Your task to perform on an android device: search for starred emails in the gmail app Image 0: 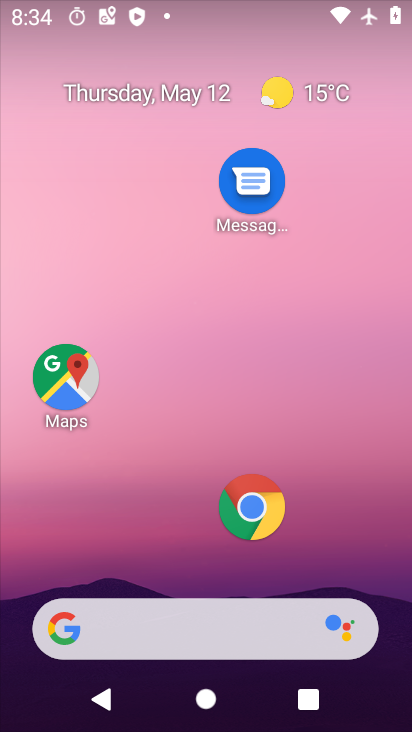
Step 0: drag from (341, 570) to (317, 42)
Your task to perform on an android device: search for starred emails in the gmail app Image 1: 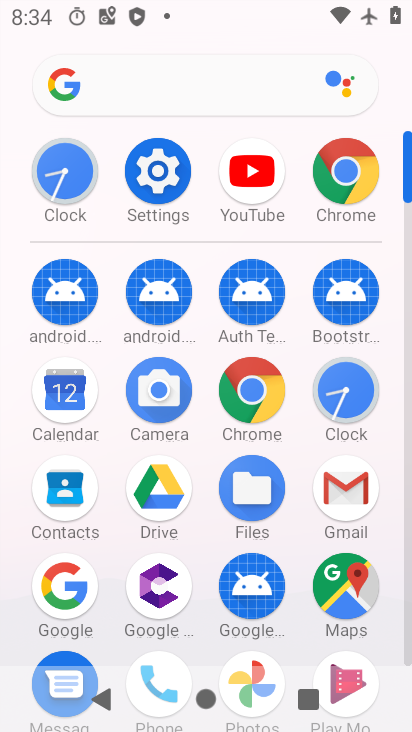
Step 1: click (356, 489)
Your task to perform on an android device: search for starred emails in the gmail app Image 2: 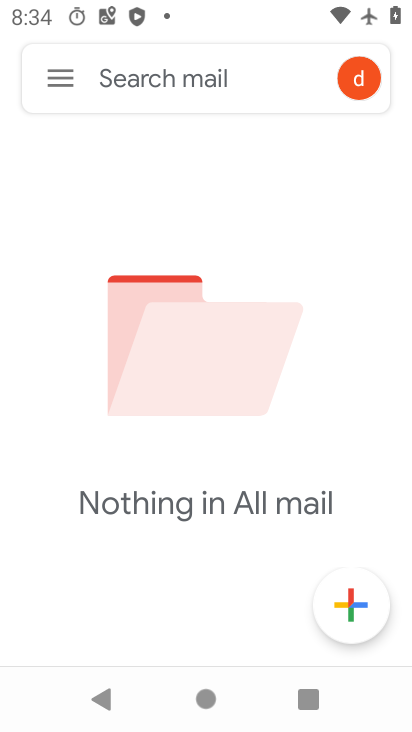
Step 2: click (69, 74)
Your task to perform on an android device: search for starred emails in the gmail app Image 3: 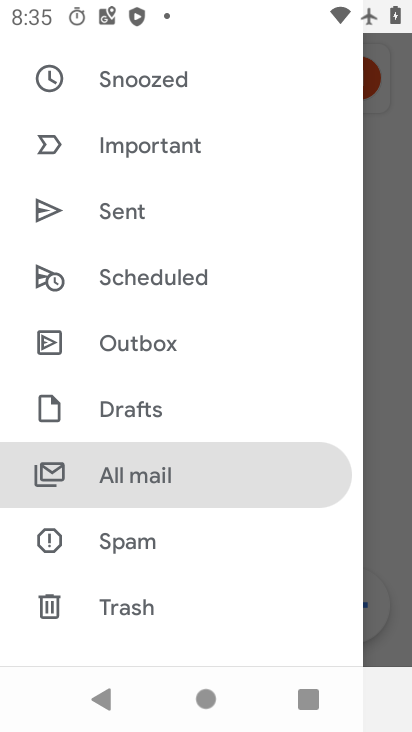
Step 3: drag from (157, 217) to (191, 419)
Your task to perform on an android device: search for starred emails in the gmail app Image 4: 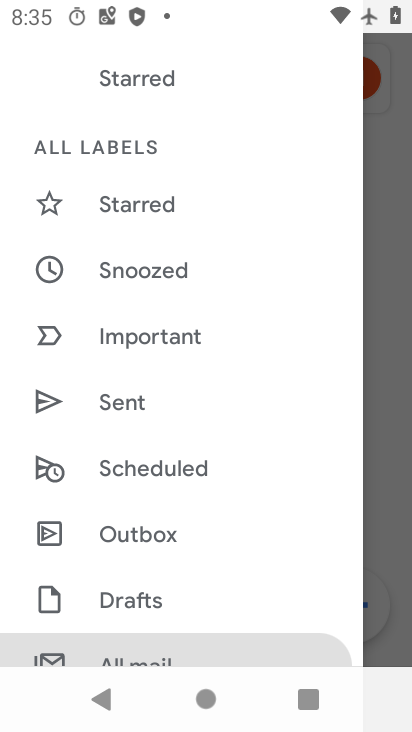
Step 4: click (154, 205)
Your task to perform on an android device: search for starred emails in the gmail app Image 5: 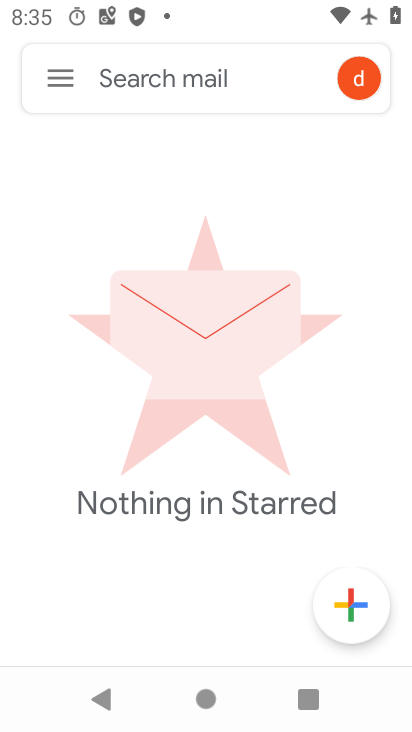
Step 5: task complete